Your task to perform on an android device: Go to accessibility settings Image 0: 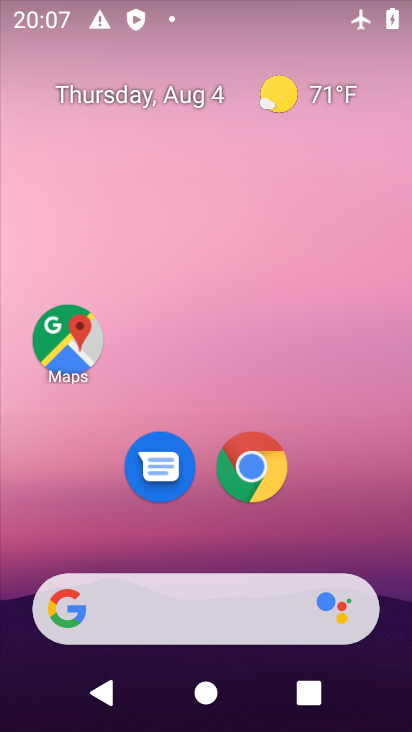
Step 0: press home button
Your task to perform on an android device: Go to accessibility settings Image 1: 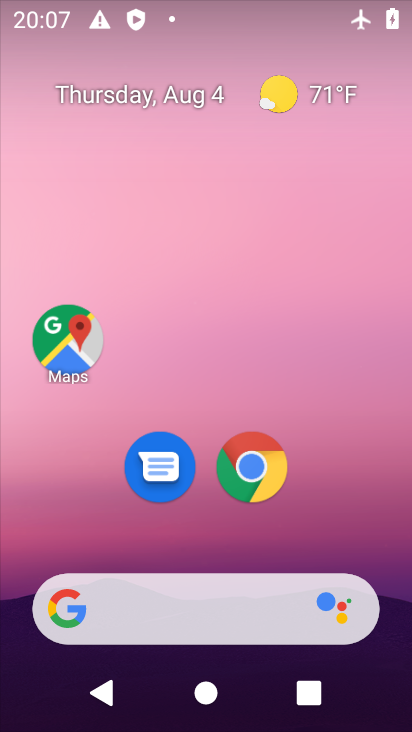
Step 1: drag from (379, 601) to (344, 123)
Your task to perform on an android device: Go to accessibility settings Image 2: 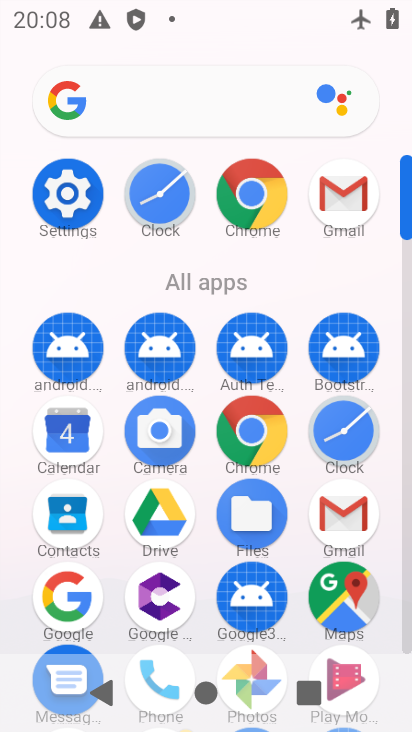
Step 2: press home button
Your task to perform on an android device: Go to accessibility settings Image 3: 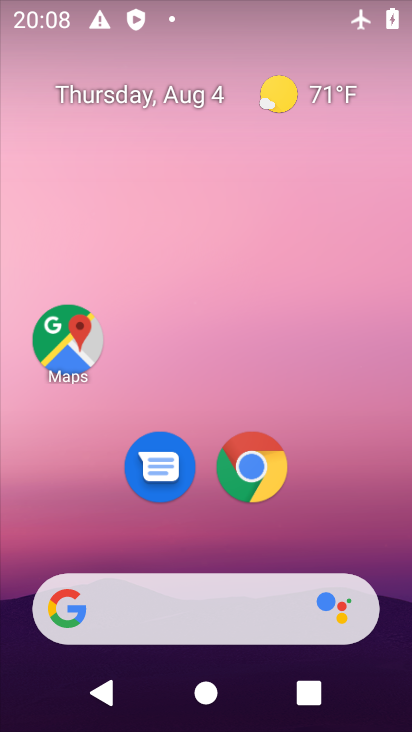
Step 3: drag from (312, 616) to (266, 6)
Your task to perform on an android device: Go to accessibility settings Image 4: 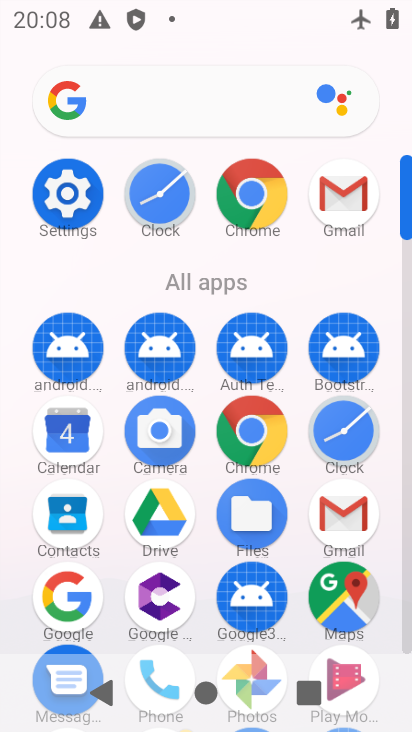
Step 4: click (65, 184)
Your task to perform on an android device: Go to accessibility settings Image 5: 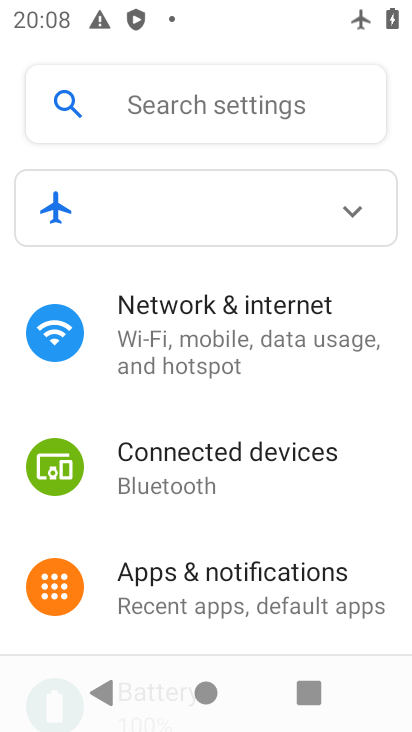
Step 5: drag from (280, 540) to (282, 418)
Your task to perform on an android device: Go to accessibility settings Image 6: 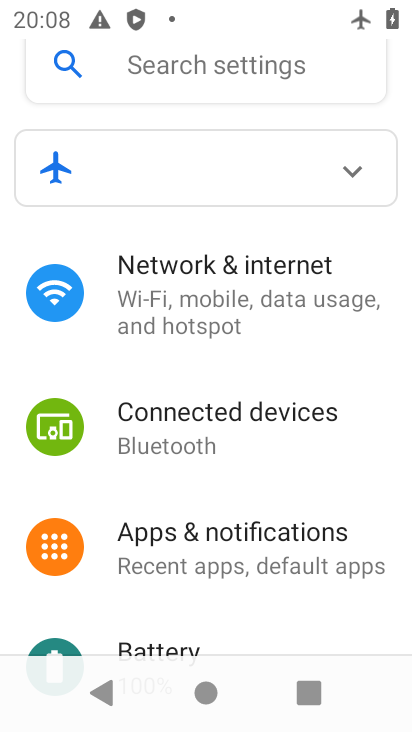
Step 6: drag from (300, 597) to (376, 37)
Your task to perform on an android device: Go to accessibility settings Image 7: 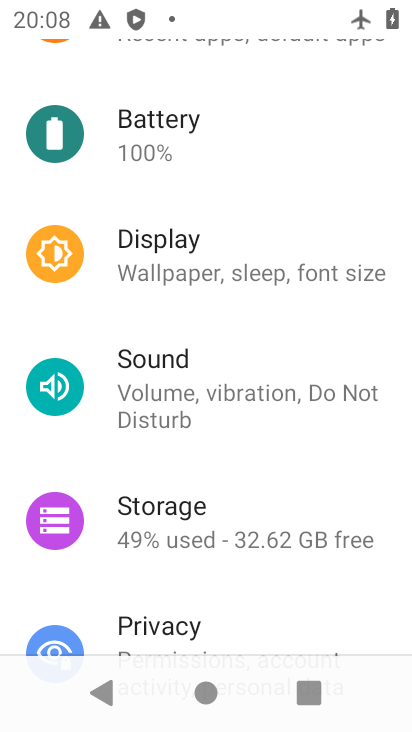
Step 7: drag from (241, 604) to (249, 62)
Your task to perform on an android device: Go to accessibility settings Image 8: 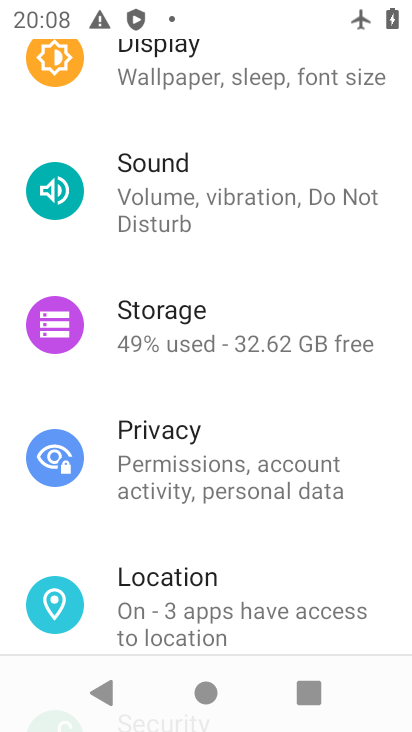
Step 8: drag from (207, 544) to (231, 351)
Your task to perform on an android device: Go to accessibility settings Image 9: 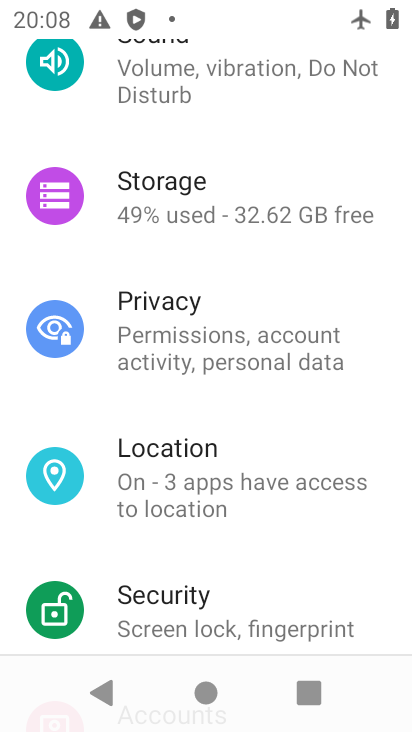
Step 9: drag from (258, 541) to (247, 331)
Your task to perform on an android device: Go to accessibility settings Image 10: 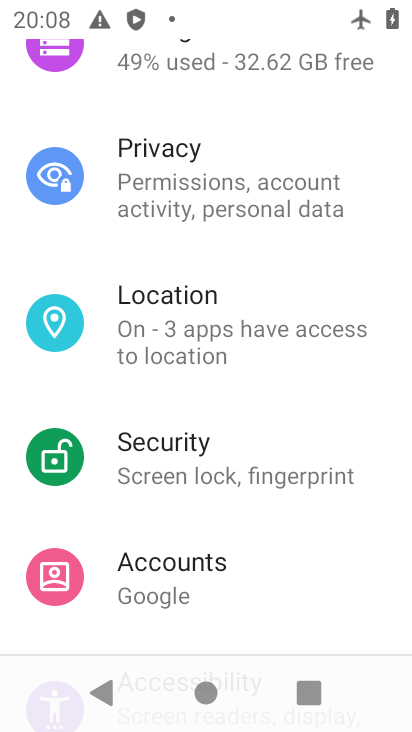
Step 10: drag from (297, 510) to (286, 419)
Your task to perform on an android device: Go to accessibility settings Image 11: 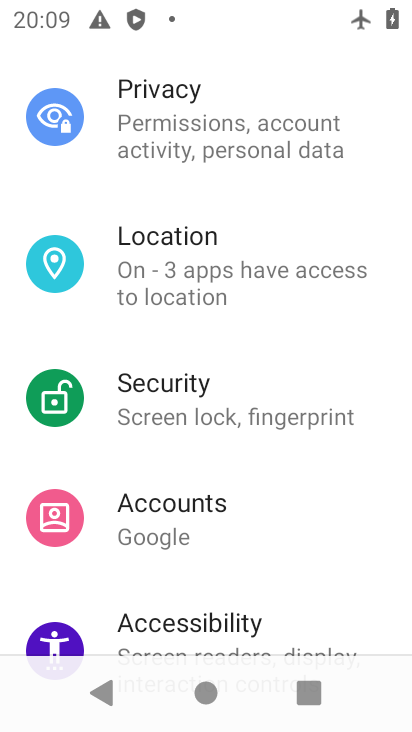
Step 11: drag from (266, 578) to (248, 450)
Your task to perform on an android device: Go to accessibility settings Image 12: 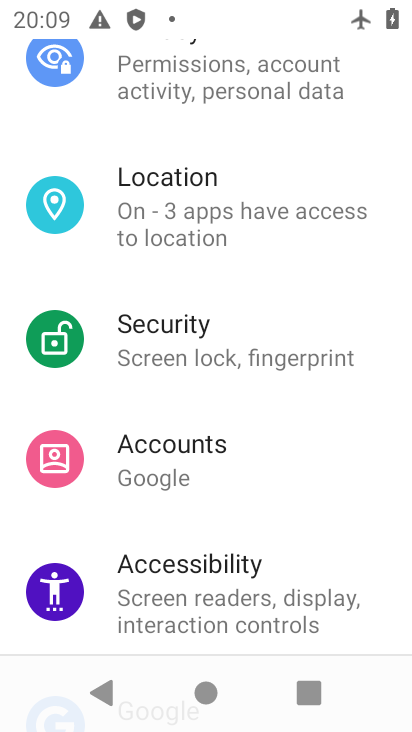
Step 12: click (241, 608)
Your task to perform on an android device: Go to accessibility settings Image 13: 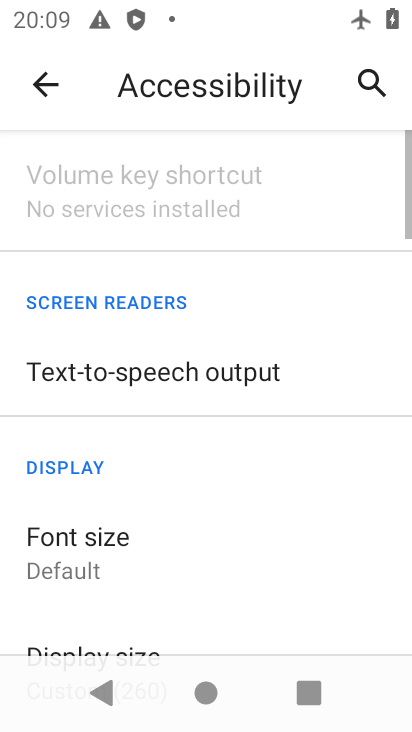
Step 13: task complete